Your task to perform on an android device: open sync settings in chrome Image 0: 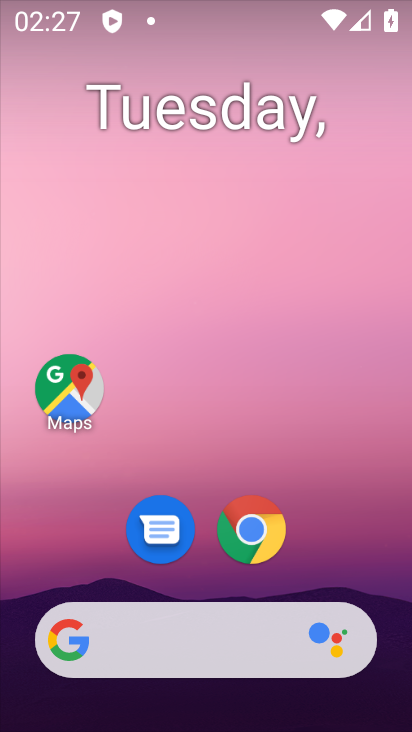
Step 0: click (258, 525)
Your task to perform on an android device: open sync settings in chrome Image 1: 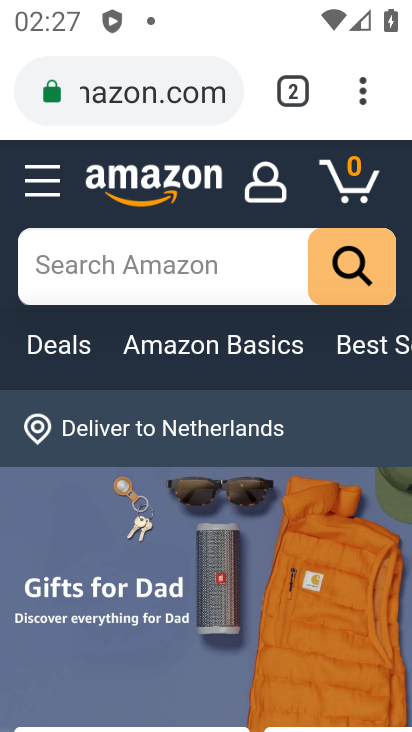
Step 1: click (358, 93)
Your task to perform on an android device: open sync settings in chrome Image 2: 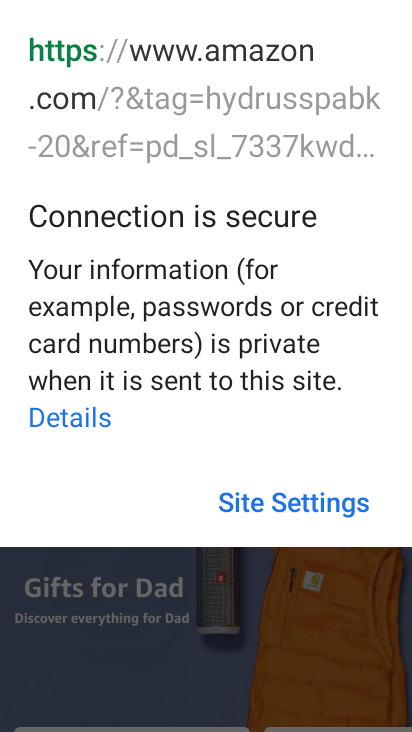
Step 2: click (149, 612)
Your task to perform on an android device: open sync settings in chrome Image 3: 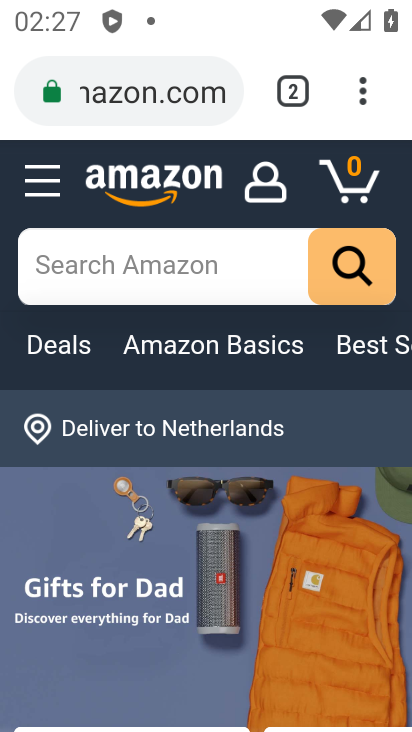
Step 3: click (372, 99)
Your task to perform on an android device: open sync settings in chrome Image 4: 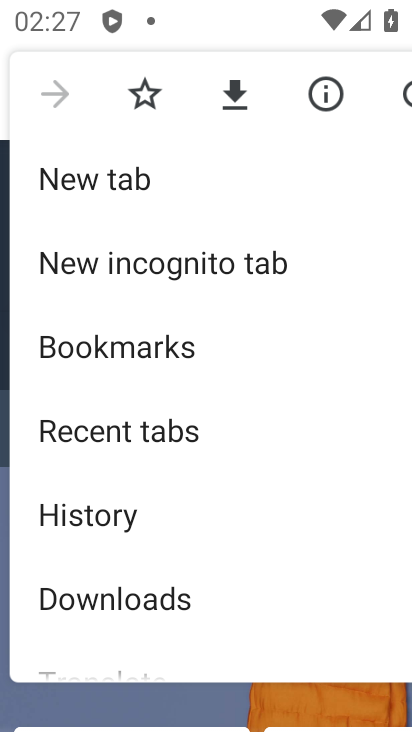
Step 4: drag from (104, 545) to (140, 168)
Your task to perform on an android device: open sync settings in chrome Image 5: 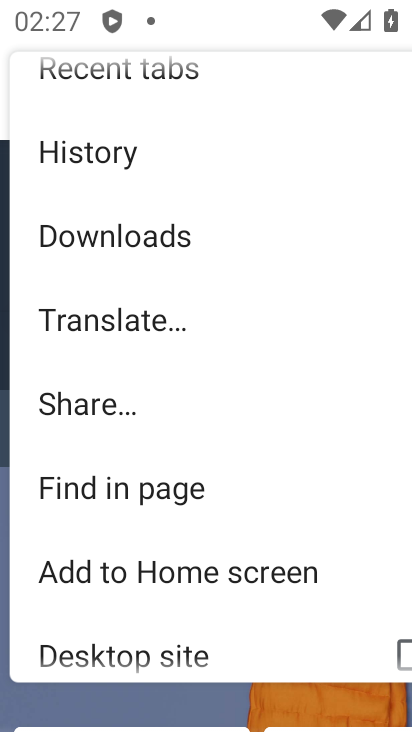
Step 5: drag from (113, 560) to (163, 120)
Your task to perform on an android device: open sync settings in chrome Image 6: 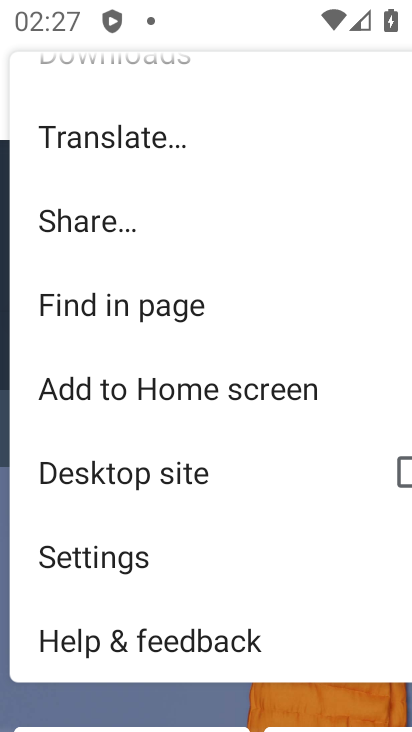
Step 6: click (114, 543)
Your task to perform on an android device: open sync settings in chrome Image 7: 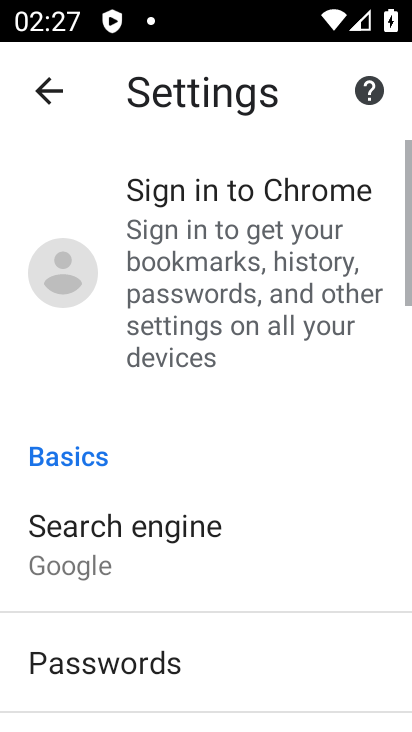
Step 7: drag from (225, 653) to (260, 291)
Your task to perform on an android device: open sync settings in chrome Image 8: 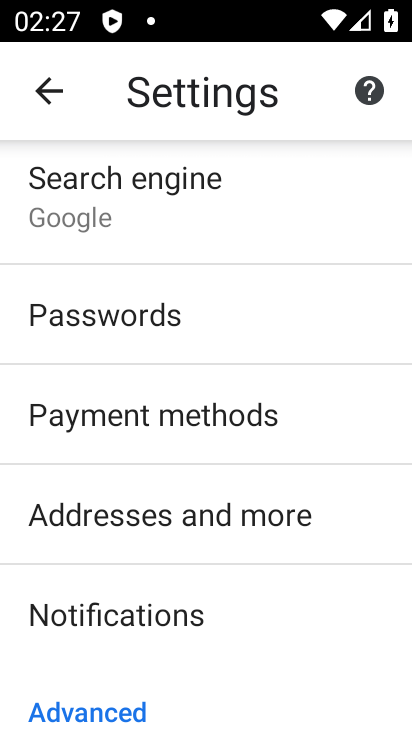
Step 8: drag from (260, 312) to (314, 730)
Your task to perform on an android device: open sync settings in chrome Image 9: 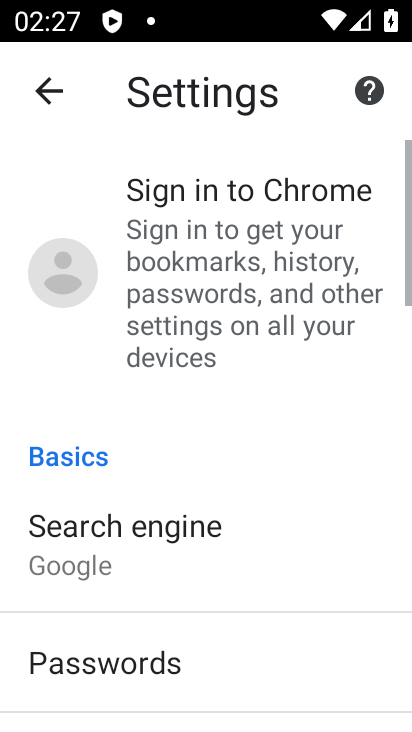
Step 9: click (277, 309)
Your task to perform on an android device: open sync settings in chrome Image 10: 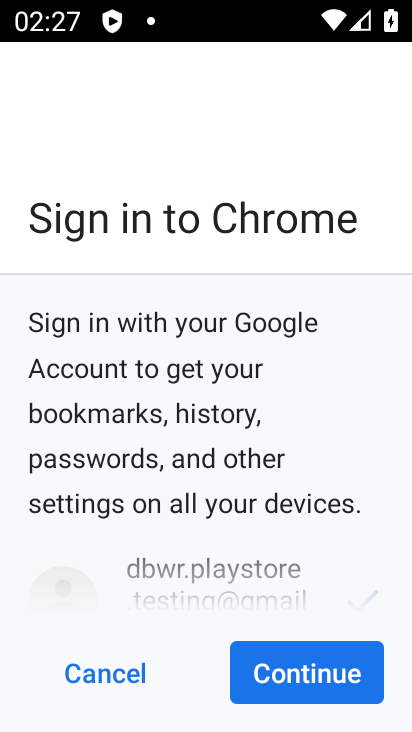
Step 10: click (272, 691)
Your task to perform on an android device: open sync settings in chrome Image 11: 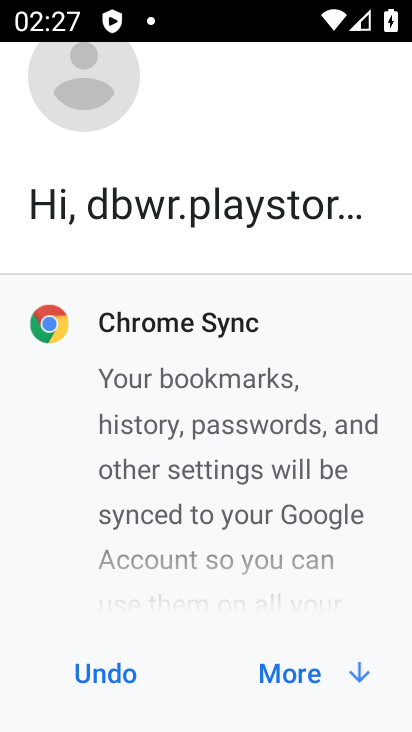
Step 11: click (270, 680)
Your task to perform on an android device: open sync settings in chrome Image 12: 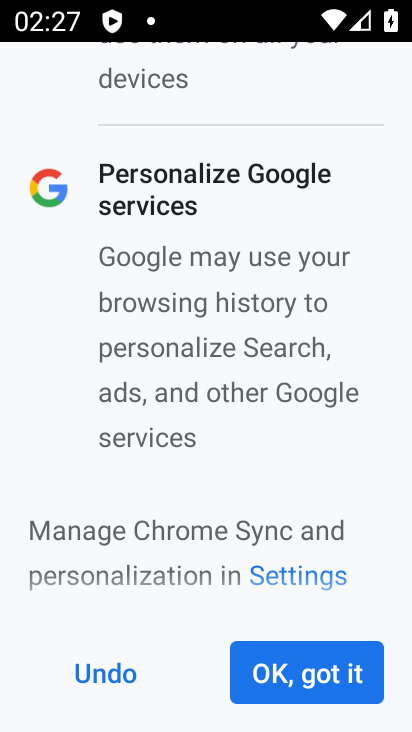
Step 12: click (264, 671)
Your task to perform on an android device: open sync settings in chrome Image 13: 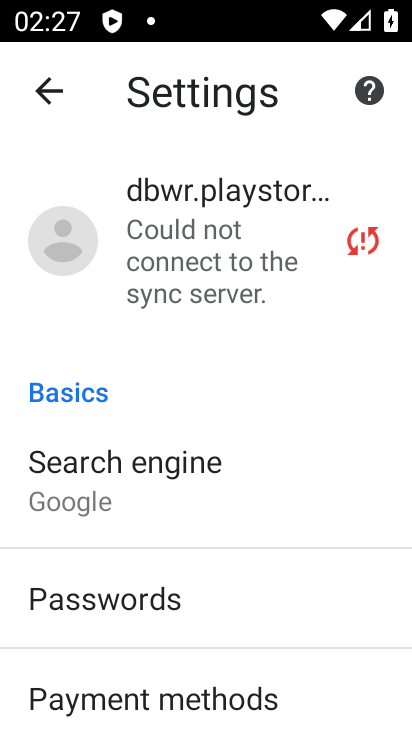
Step 13: click (202, 249)
Your task to perform on an android device: open sync settings in chrome Image 14: 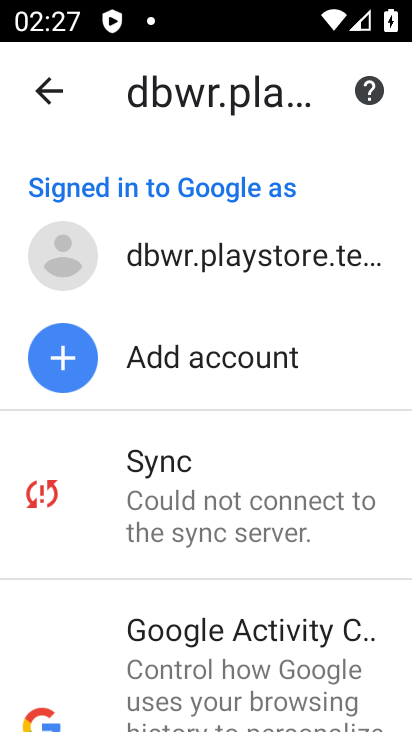
Step 14: click (199, 518)
Your task to perform on an android device: open sync settings in chrome Image 15: 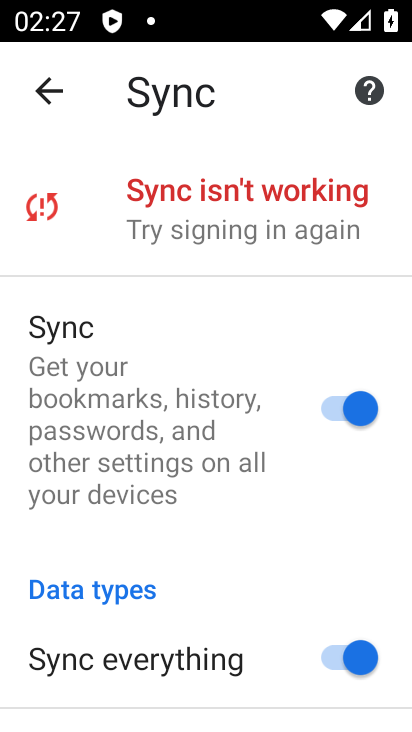
Step 15: task complete